Your task to perform on an android device: Go to Google maps Image 0: 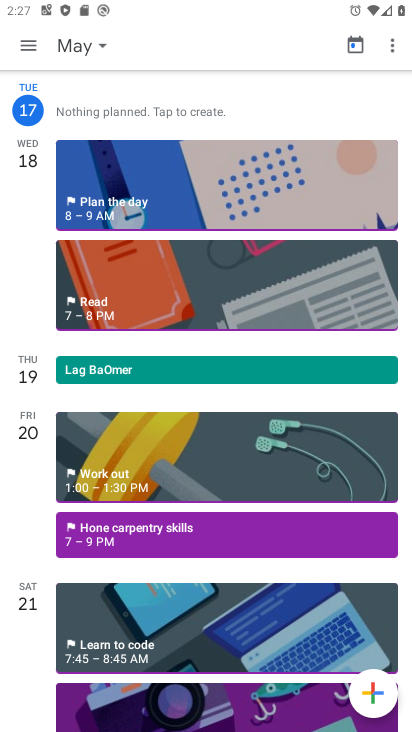
Step 0: press back button
Your task to perform on an android device: Go to Google maps Image 1: 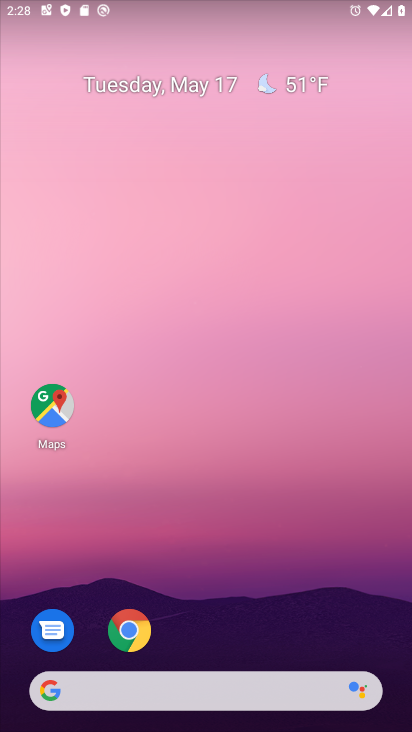
Step 1: click (32, 396)
Your task to perform on an android device: Go to Google maps Image 2: 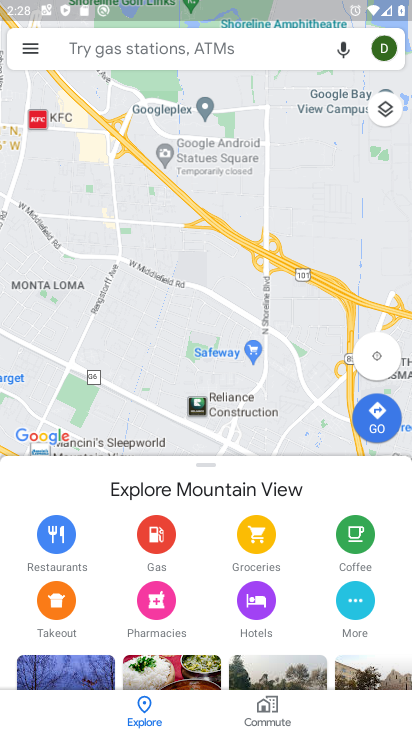
Step 2: task complete